Your task to perform on an android device: Open calendar and show me the first week of next month Image 0: 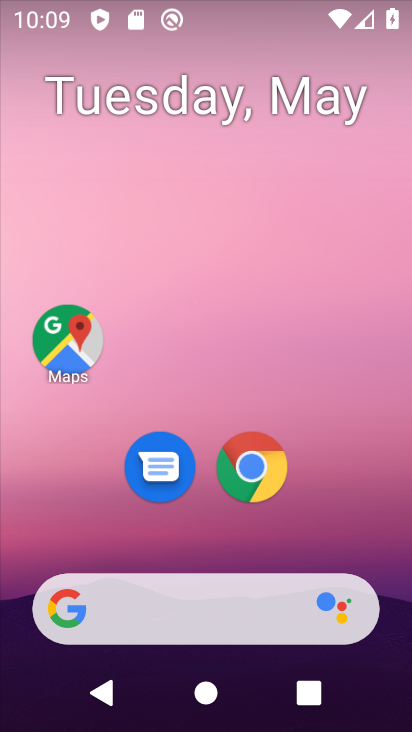
Step 0: drag from (216, 537) to (234, 67)
Your task to perform on an android device: Open calendar and show me the first week of next month Image 1: 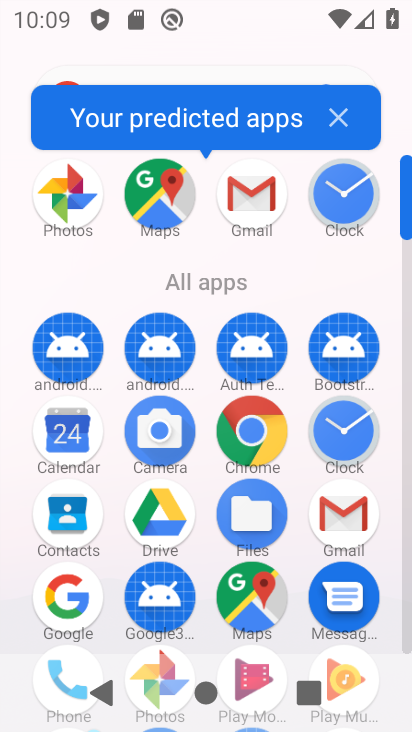
Step 1: click (59, 422)
Your task to perform on an android device: Open calendar and show me the first week of next month Image 2: 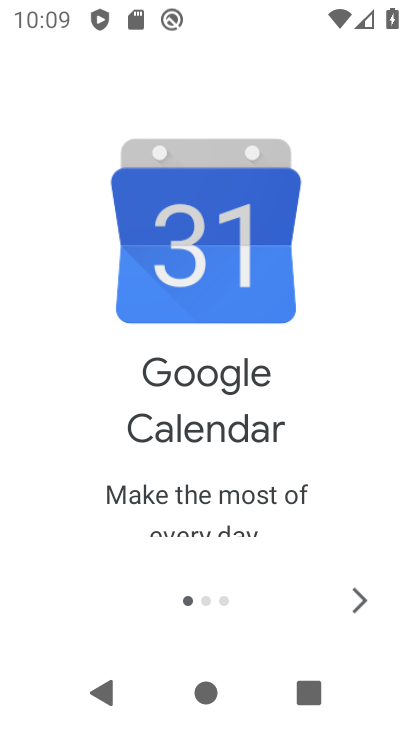
Step 2: click (340, 600)
Your task to perform on an android device: Open calendar and show me the first week of next month Image 3: 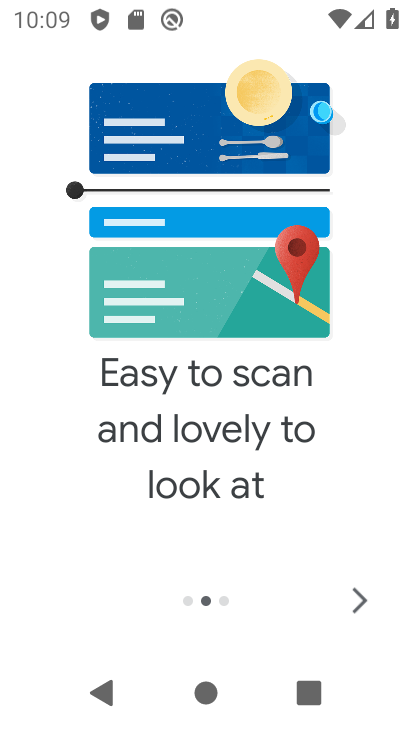
Step 3: click (348, 600)
Your task to perform on an android device: Open calendar and show me the first week of next month Image 4: 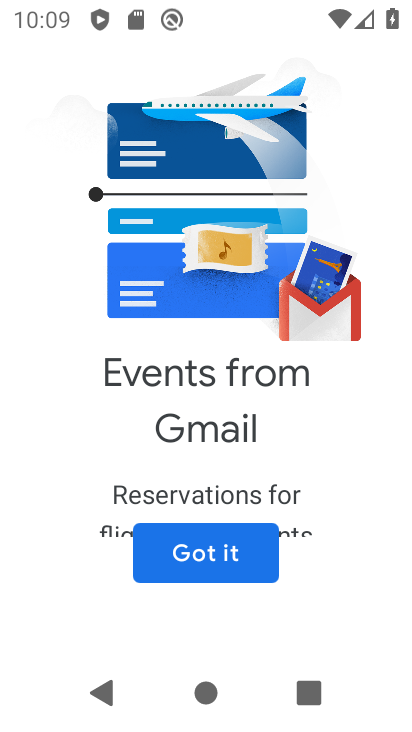
Step 4: click (348, 600)
Your task to perform on an android device: Open calendar and show me the first week of next month Image 5: 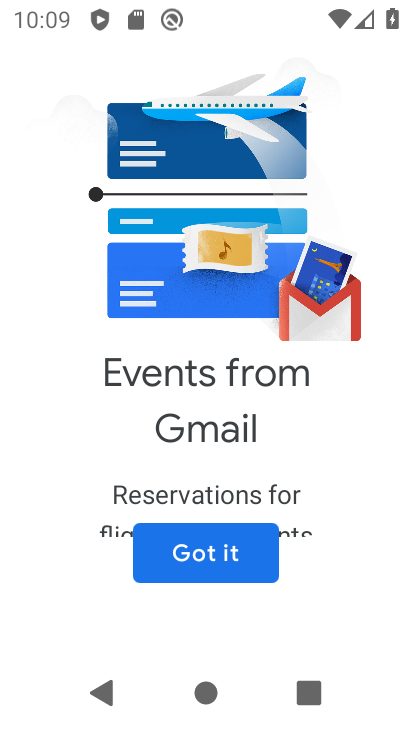
Step 5: click (221, 552)
Your task to perform on an android device: Open calendar and show me the first week of next month Image 6: 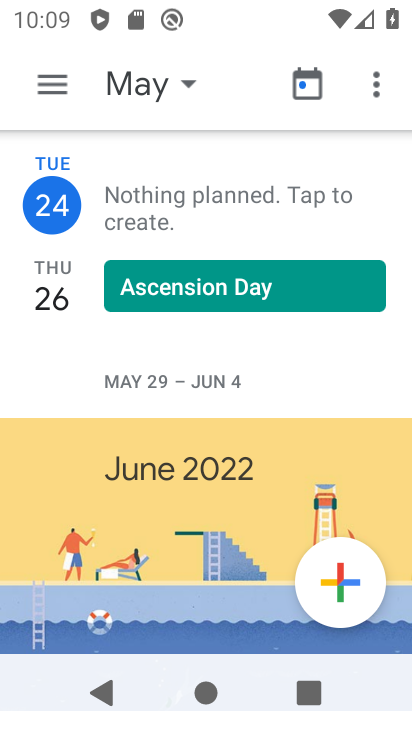
Step 6: click (173, 100)
Your task to perform on an android device: Open calendar and show me the first week of next month Image 7: 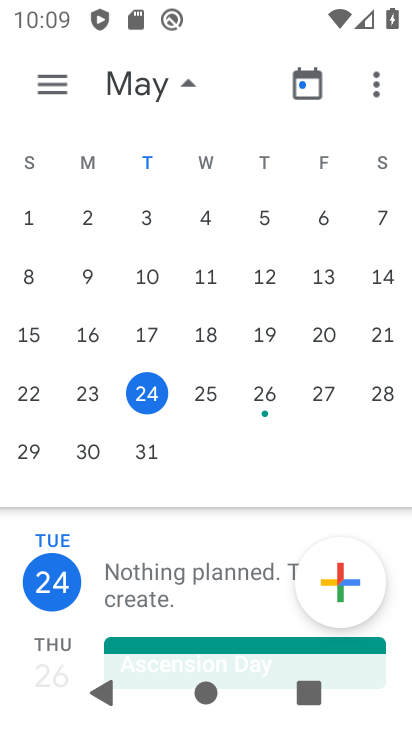
Step 7: drag from (382, 356) to (39, 357)
Your task to perform on an android device: Open calendar and show me the first week of next month Image 8: 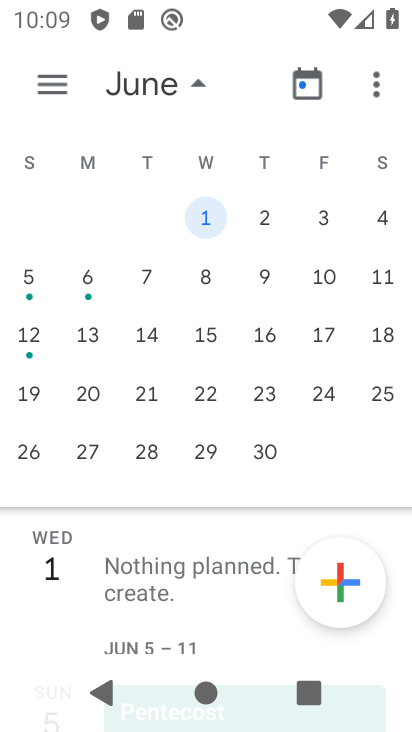
Step 8: click (321, 217)
Your task to perform on an android device: Open calendar and show me the first week of next month Image 9: 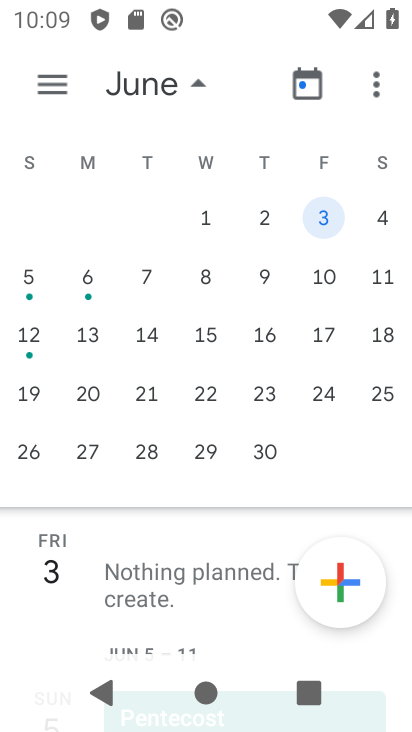
Step 9: task complete